Your task to perform on an android device: Is it going to rain today? Image 0: 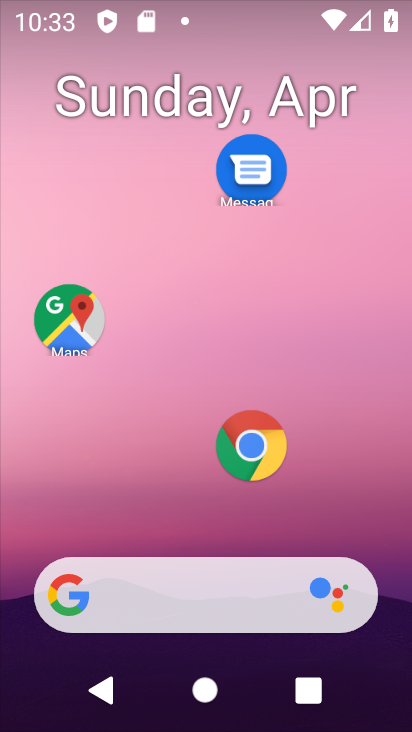
Step 0: press home button
Your task to perform on an android device: Is it going to rain today? Image 1: 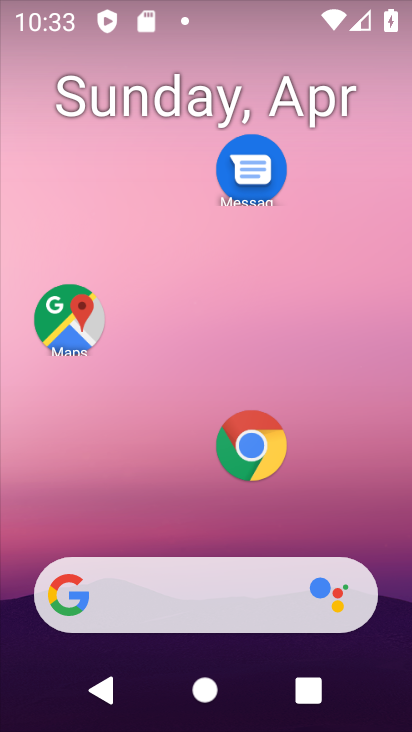
Step 1: drag from (146, 597) to (294, 70)
Your task to perform on an android device: Is it going to rain today? Image 2: 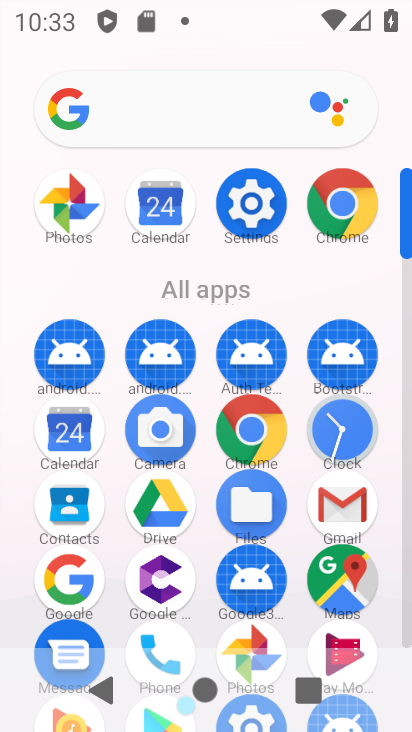
Step 2: click (81, 593)
Your task to perform on an android device: Is it going to rain today? Image 3: 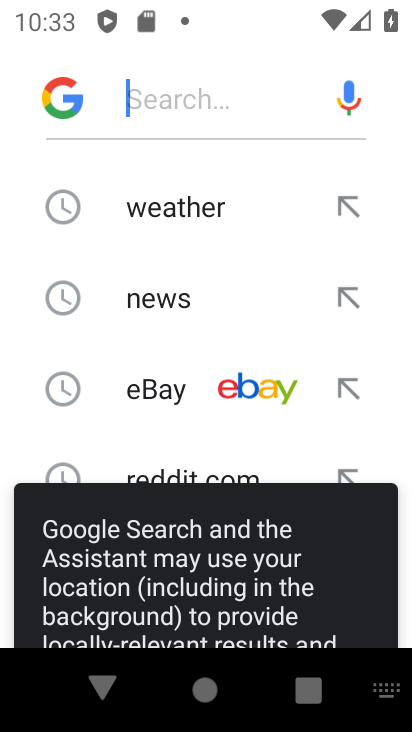
Step 3: drag from (202, 386) to (337, 133)
Your task to perform on an android device: Is it going to rain today? Image 4: 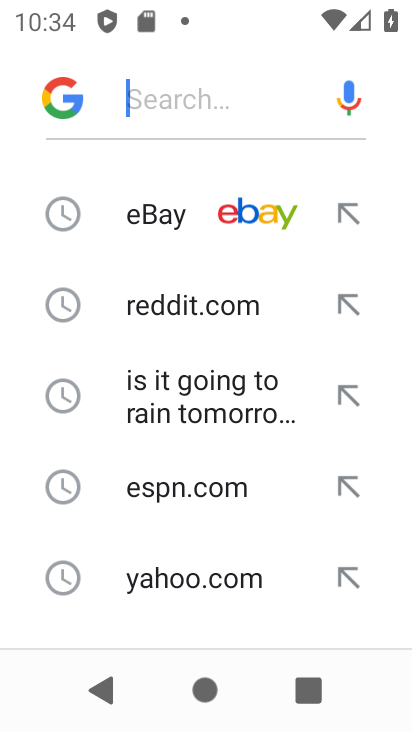
Step 4: drag from (170, 594) to (367, 155)
Your task to perform on an android device: Is it going to rain today? Image 5: 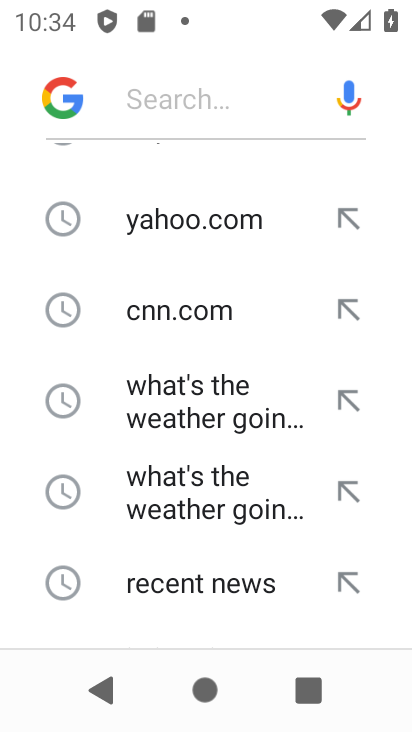
Step 5: drag from (208, 555) to (333, 134)
Your task to perform on an android device: Is it going to rain today? Image 6: 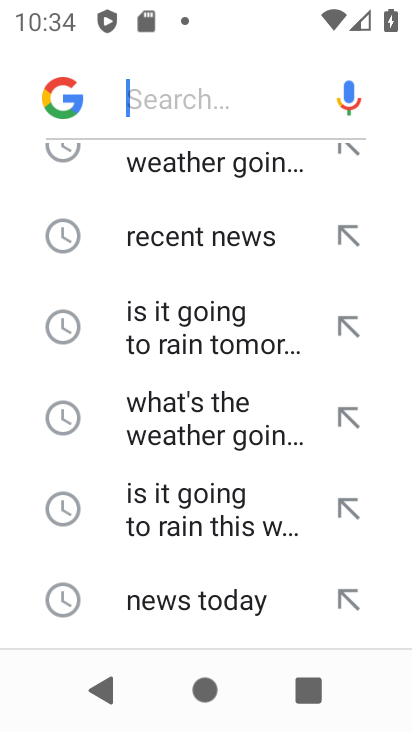
Step 6: drag from (191, 544) to (275, 160)
Your task to perform on an android device: Is it going to rain today? Image 7: 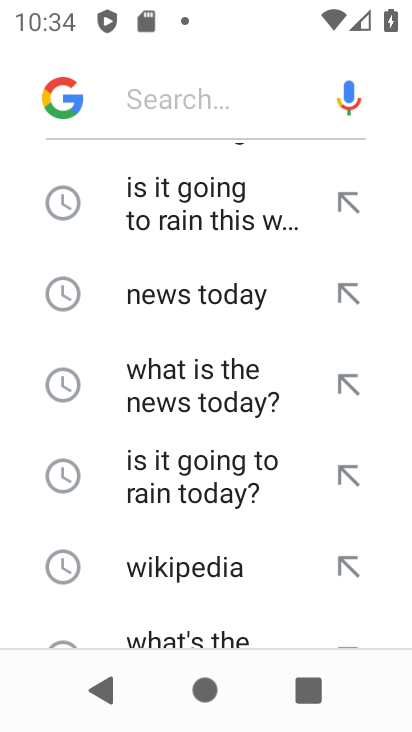
Step 7: drag from (195, 568) to (308, 168)
Your task to perform on an android device: Is it going to rain today? Image 8: 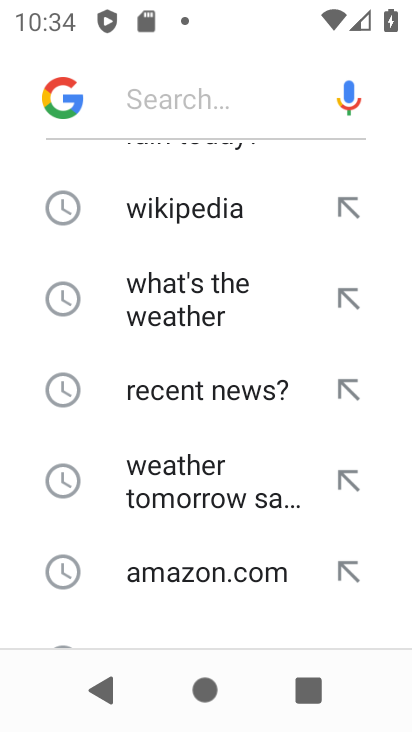
Step 8: click (194, 102)
Your task to perform on an android device: Is it going to rain today? Image 9: 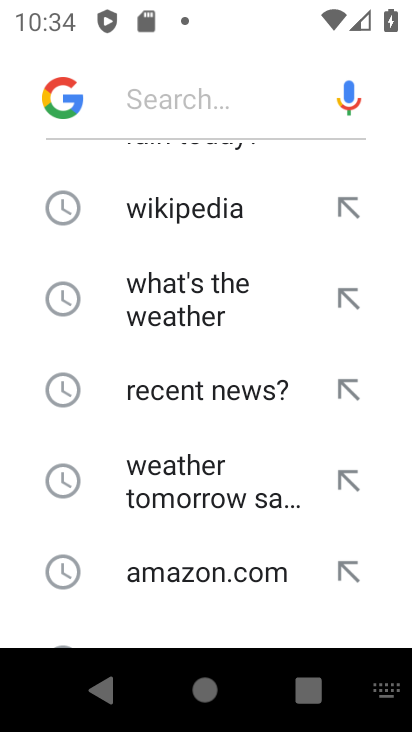
Step 9: type "weather"
Your task to perform on an android device: Is it going to rain today? Image 10: 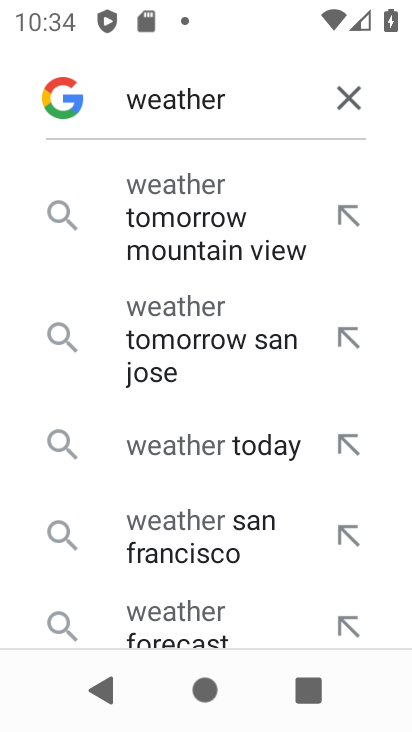
Step 10: drag from (194, 516) to (189, 583)
Your task to perform on an android device: Is it going to rain today? Image 11: 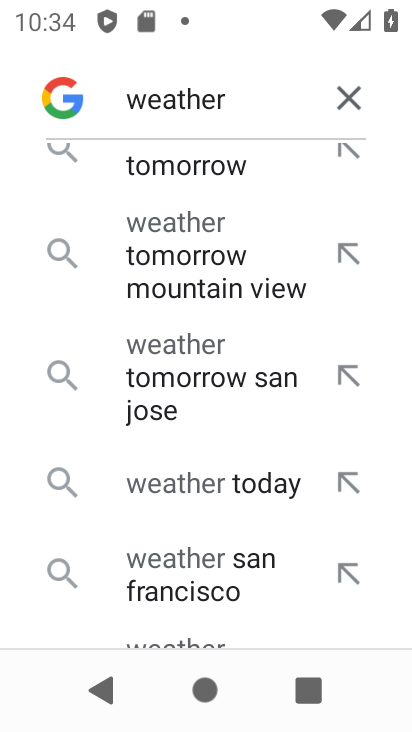
Step 11: click (220, 448)
Your task to perform on an android device: Is it going to rain today? Image 12: 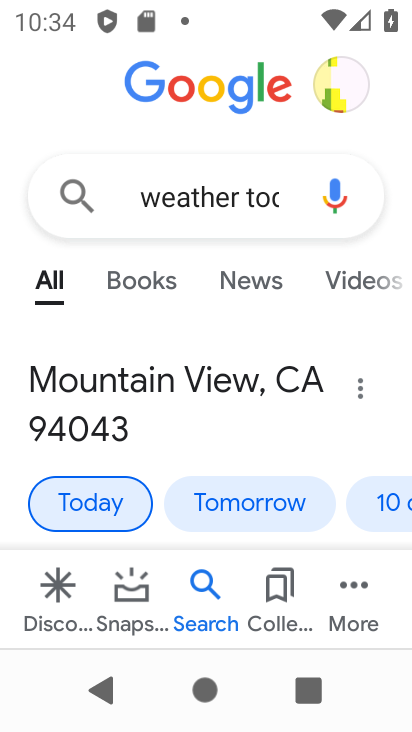
Step 12: task complete